Your task to perform on an android device: check data usage Image 0: 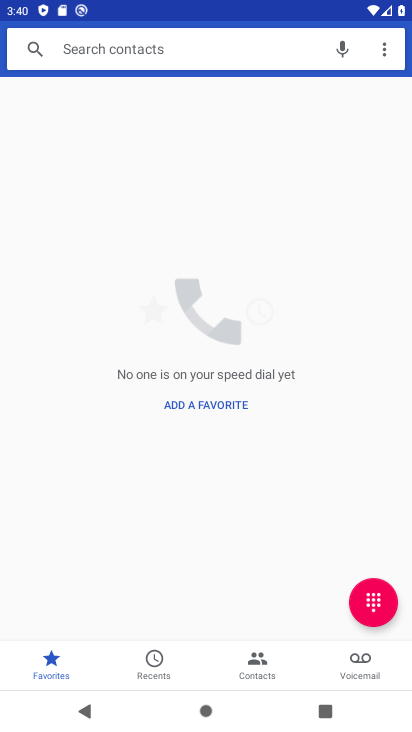
Step 0: press home button
Your task to perform on an android device: check data usage Image 1: 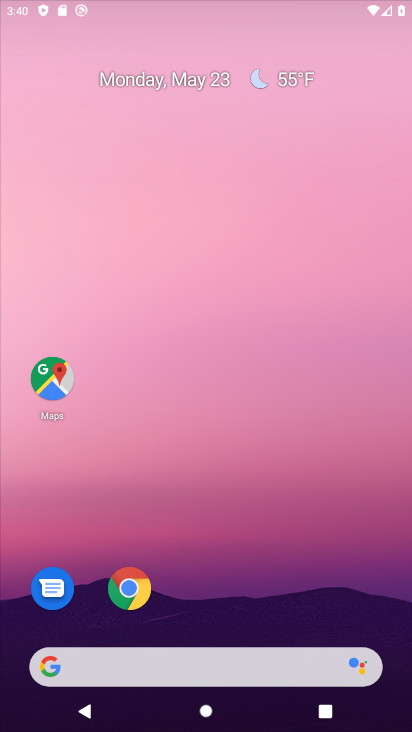
Step 1: drag from (225, 606) to (179, 3)
Your task to perform on an android device: check data usage Image 2: 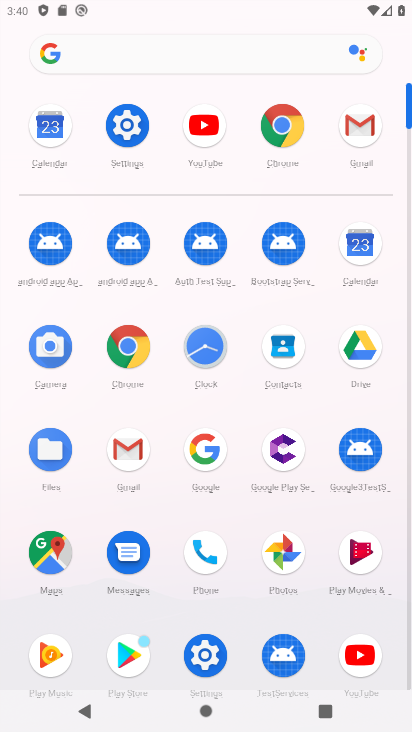
Step 2: click (124, 123)
Your task to perform on an android device: check data usage Image 3: 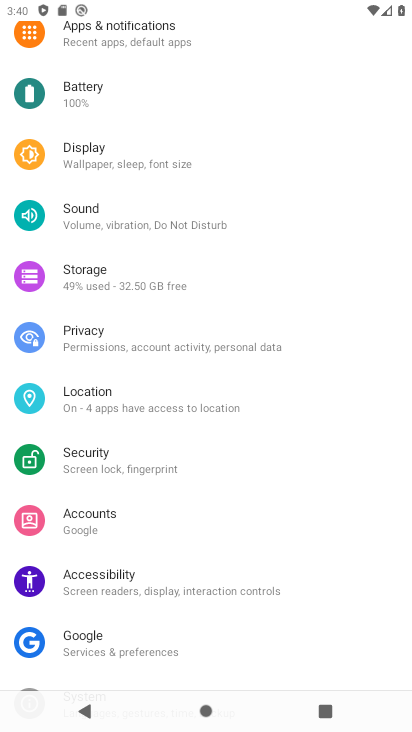
Step 3: click (173, 535)
Your task to perform on an android device: check data usage Image 4: 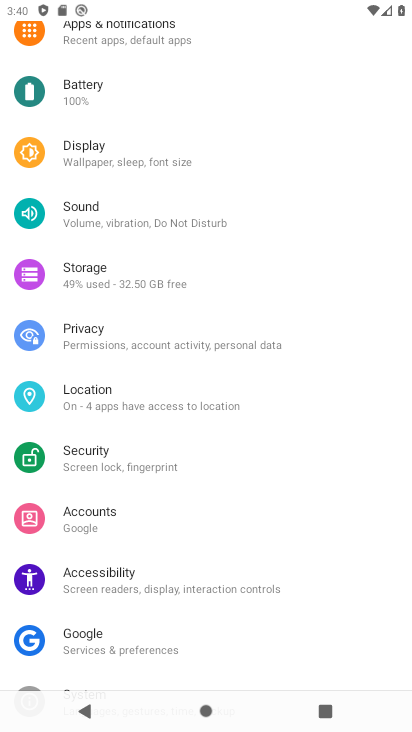
Step 4: drag from (129, 69) to (172, 577)
Your task to perform on an android device: check data usage Image 5: 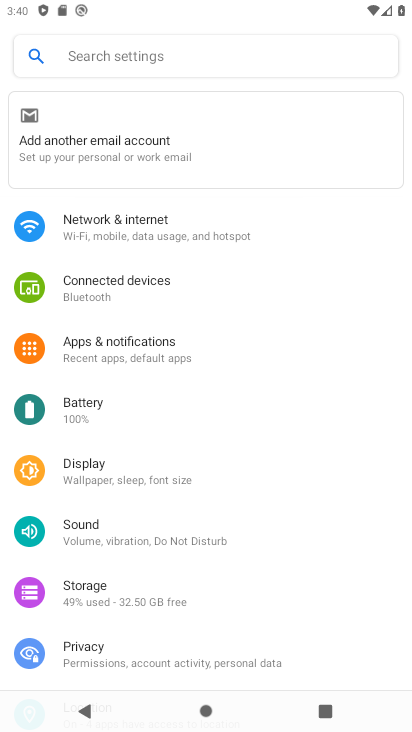
Step 5: click (144, 218)
Your task to perform on an android device: check data usage Image 6: 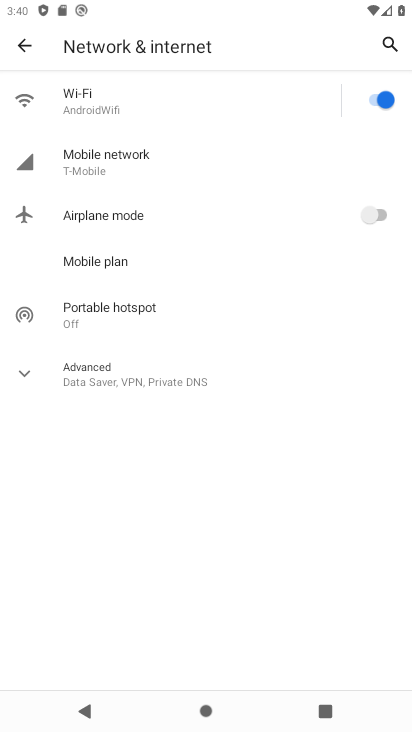
Step 6: click (113, 167)
Your task to perform on an android device: check data usage Image 7: 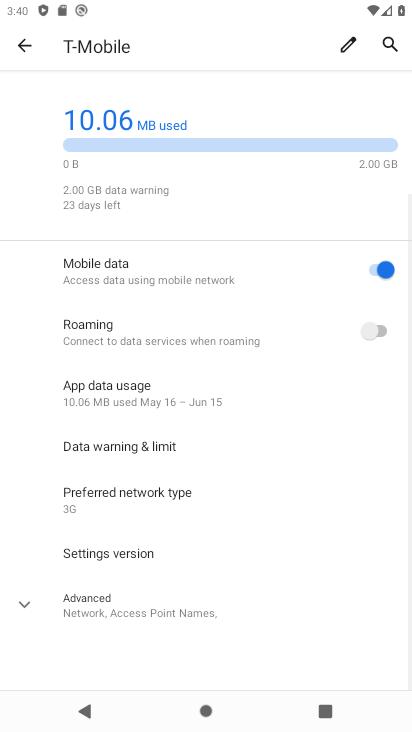
Step 7: task complete